Your task to perform on an android device: turn on translation in the chrome app Image 0: 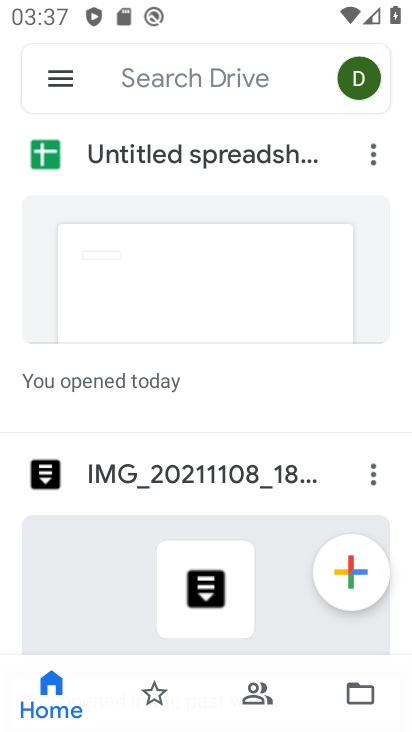
Step 0: press home button
Your task to perform on an android device: turn on translation in the chrome app Image 1: 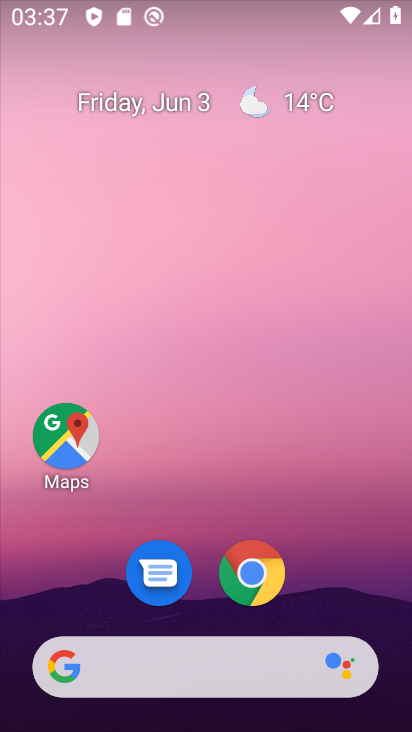
Step 1: drag from (281, 649) to (374, 52)
Your task to perform on an android device: turn on translation in the chrome app Image 2: 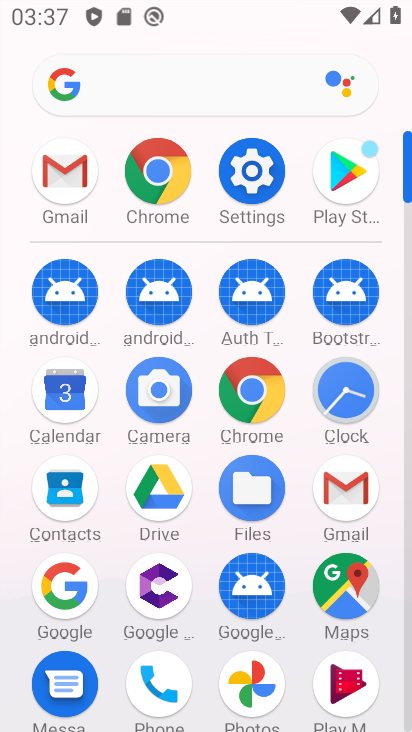
Step 2: click (239, 388)
Your task to perform on an android device: turn on translation in the chrome app Image 3: 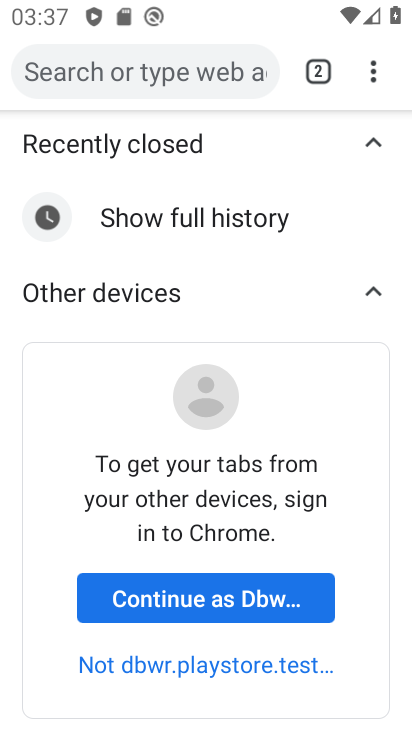
Step 3: drag from (368, 76) to (193, 606)
Your task to perform on an android device: turn on translation in the chrome app Image 4: 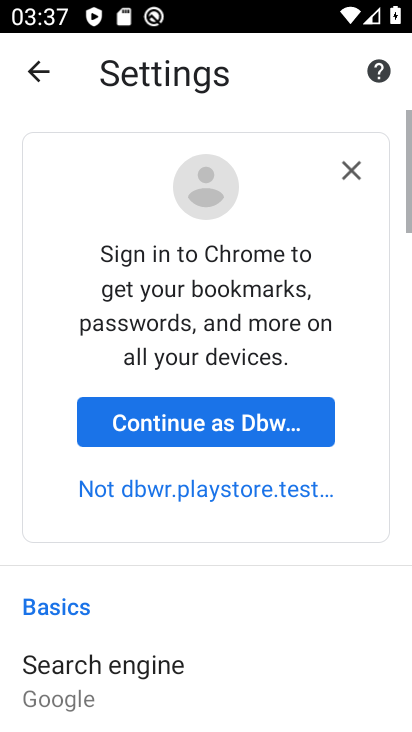
Step 4: drag from (202, 665) to (353, 10)
Your task to perform on an android device: turn on translation in the chrome app Image 5: 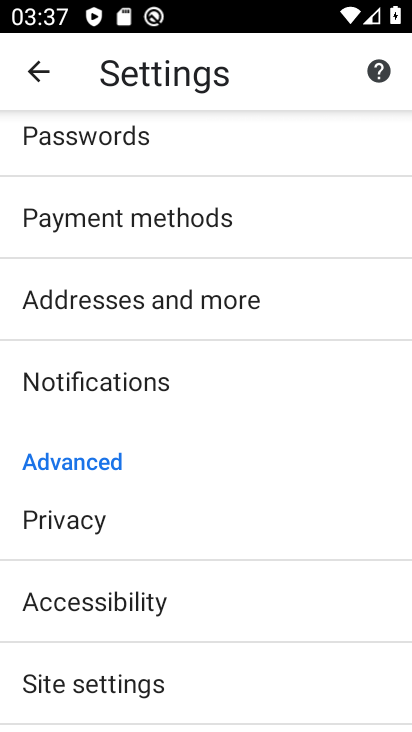
Step 5: drag from (119, 686) to (238, 65)
Your task to perform on an android device: turn on translation in the chrome app Image 6: 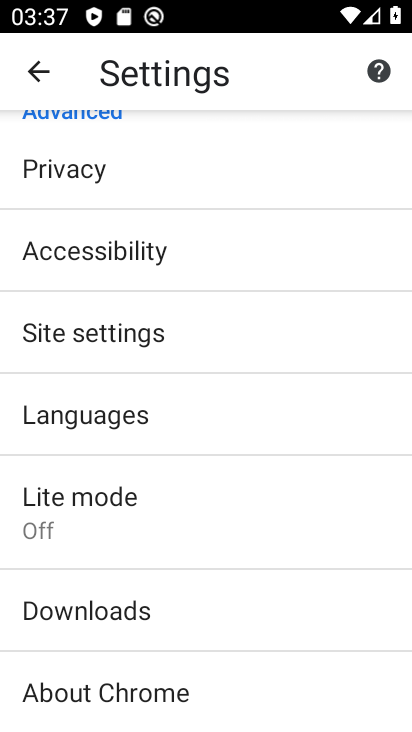
Step 6: click (129, 428)
Your task to perform on an android device: turn on translation in the chrome app Image 7: 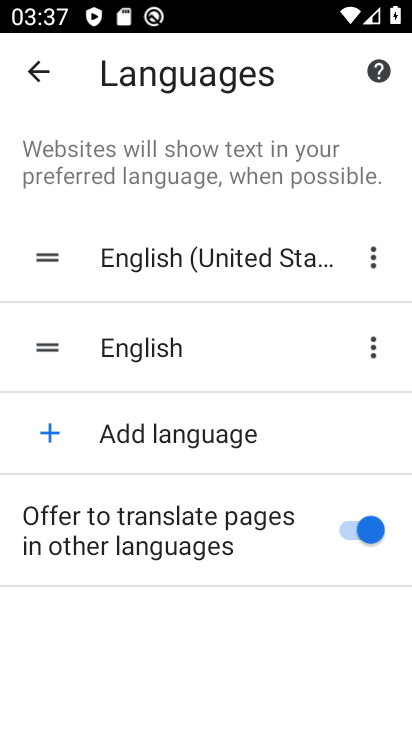
Step 7: task complete